Your task to perform on an android device: see sites visited before in the chrome app Image 0: 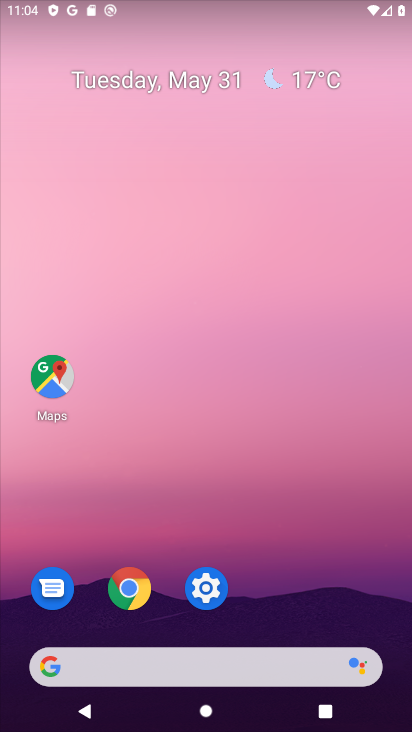
Step 0: press home button
Your task to perform on an android device: see sites visited before in the chrome app Image 1: 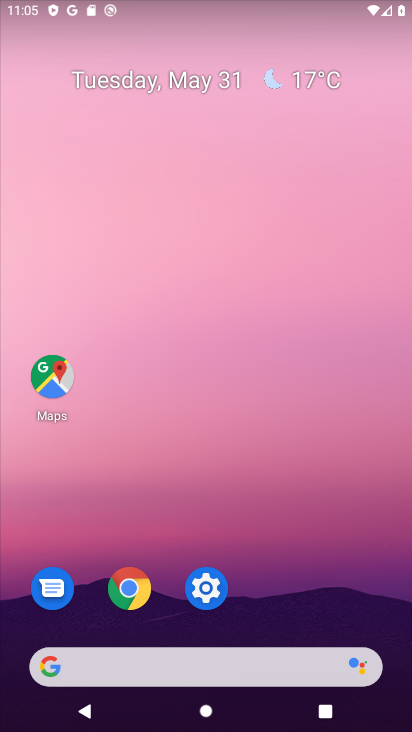
Step 1: click (130, 587)
Your task to perform on an android device: see sites visited before in the chrome app Image 2: 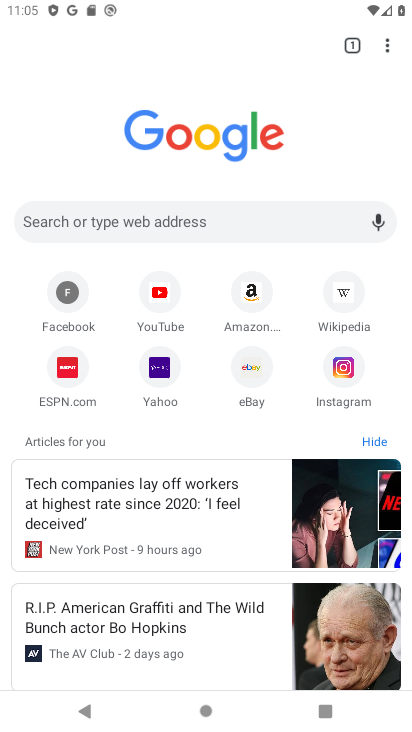
Step 2: click (389, 43)
Your task to perform on an android device: see sites visited before in the chrome app Image 3: 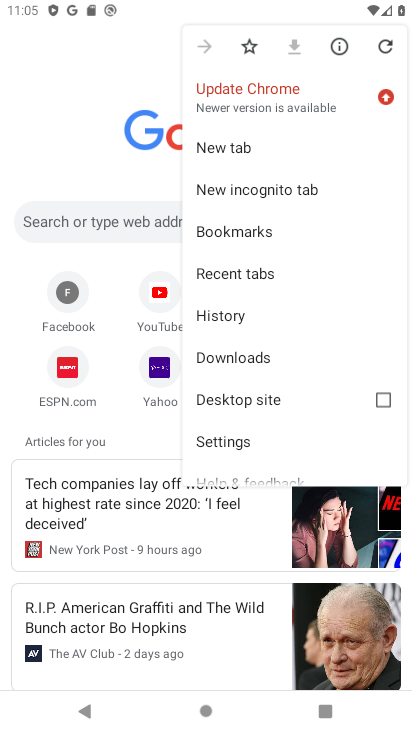
Step 3: click (225, 443)
Your task to perform on an android device: see sites visited before in the chrome app Image 4: 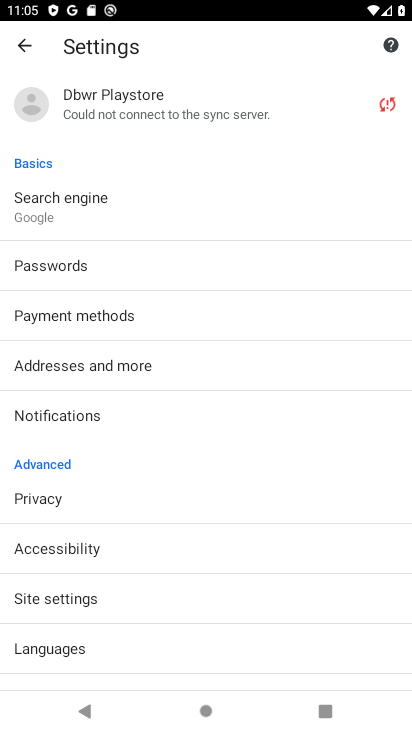
Step 4: click (47, 590)
Your task to perform on an android device: see sites visited before in the chrome app Image 5: 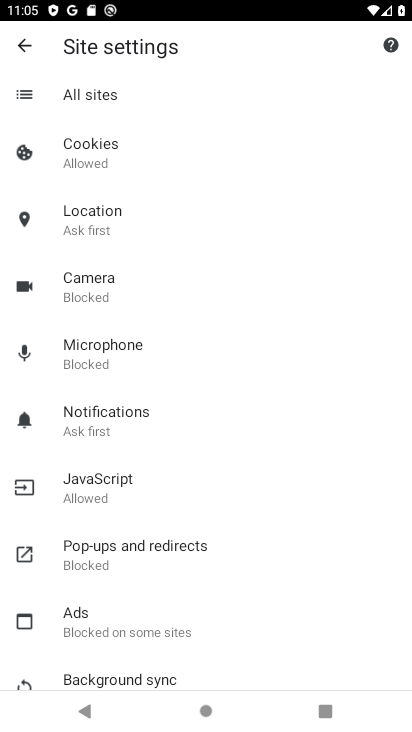
Step 5: click (87, 89)
Your task to perform on an android device: see sites visited before in the chrome app Image 6: 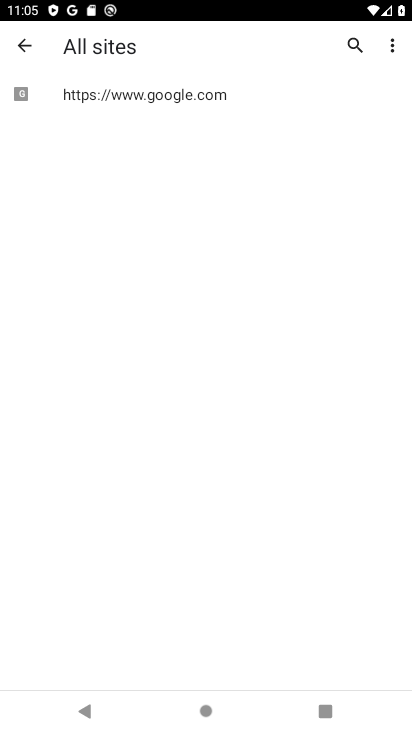
Step 6: task complete